Your task to perform on an android device: Open internet settings Image 0: 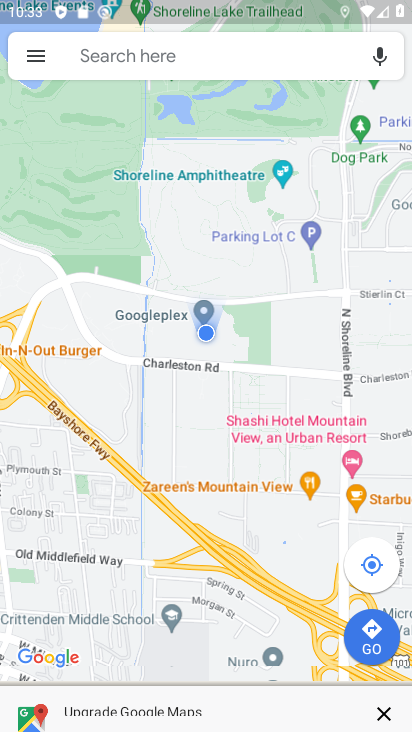
Step 0: drag from (290, 443) to (284, 139)
Your task to perform on an android device: Open internet settings Image 1: 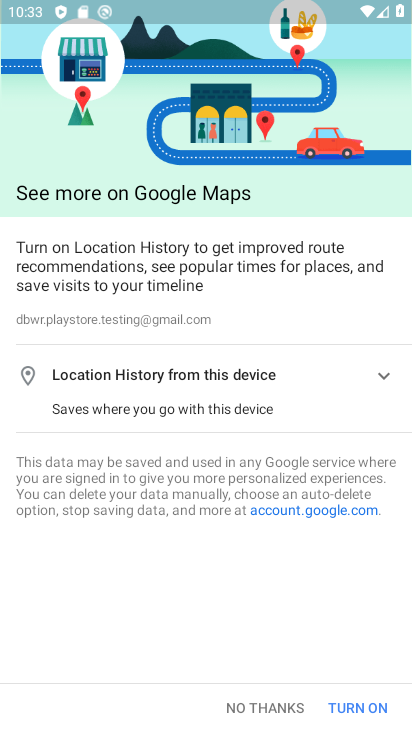
Step 1: press home button
Your task to perform on an android device: Open internet settings Image 2: 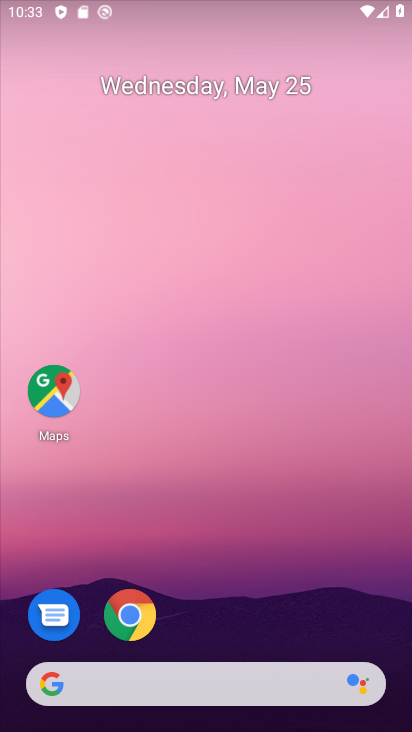
Step 2: drag from (314, 592) to (318, 121)
Your task to perform on an android device: Open internet settings Image 3: 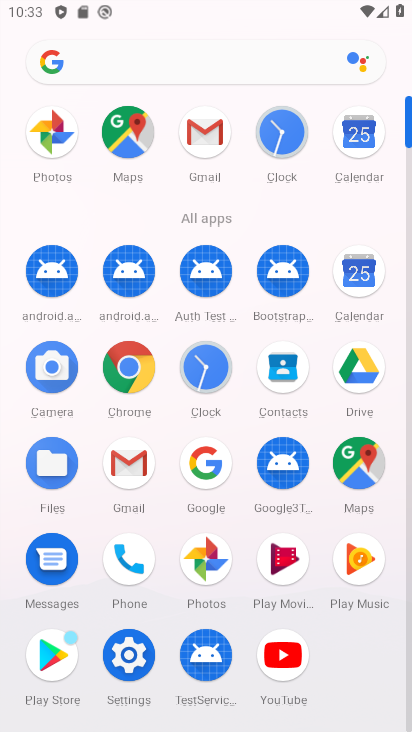
Step 3: drag from (353, 664) to (388, 252)
Your task to perform on an android device: Open internet settings Image 4: 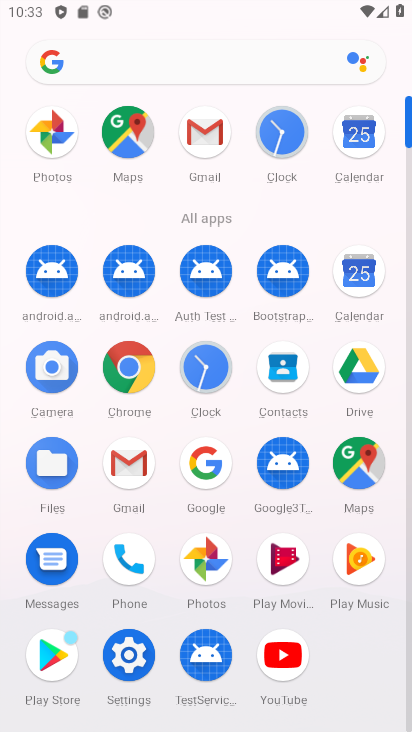
Step 4: click (140, 657)
Your task to perform on an android device: Open internet settings Image 5: 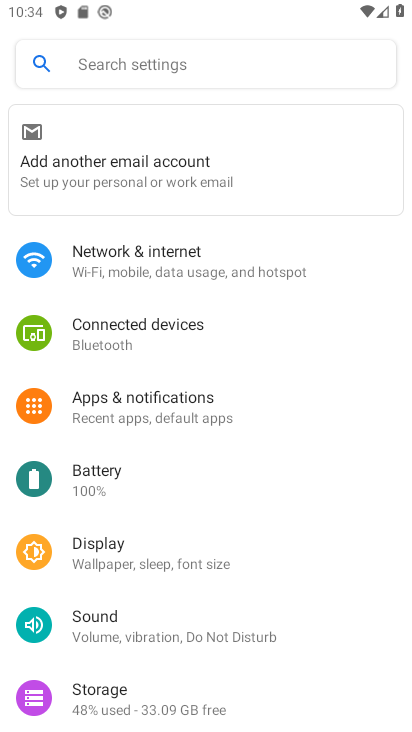
Step 5: task complete